Your task to perform on an android device: turn off picture-in-picture Image 0: 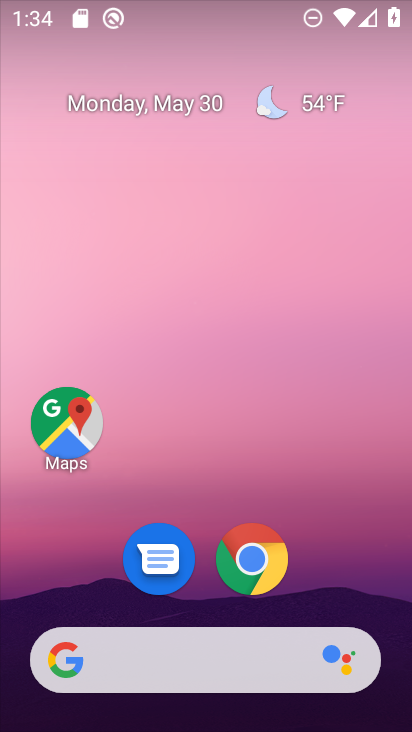
Step 0: click (259, 566)
Your task to perform on an android device: turn off picture-in-picture Image 1: 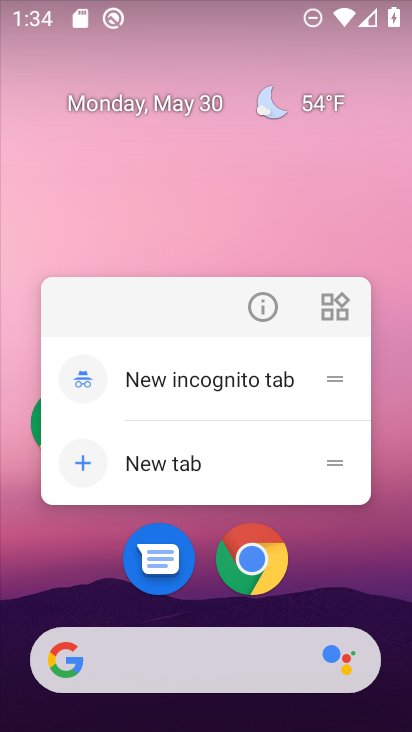
Step 1: click (267, 313)
Your task to perform on an android device: turn off picture-in-picture Image 2: 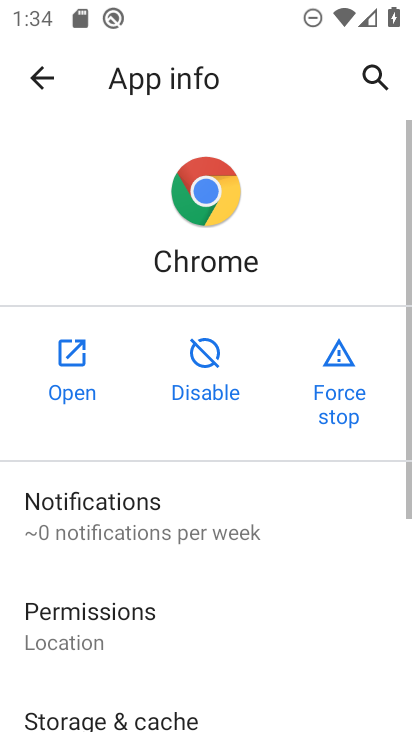
Step 2: drag from (227, 646) to (311, 160)
Your task to perform on an android device: turn off picture-in-picture Image 3: 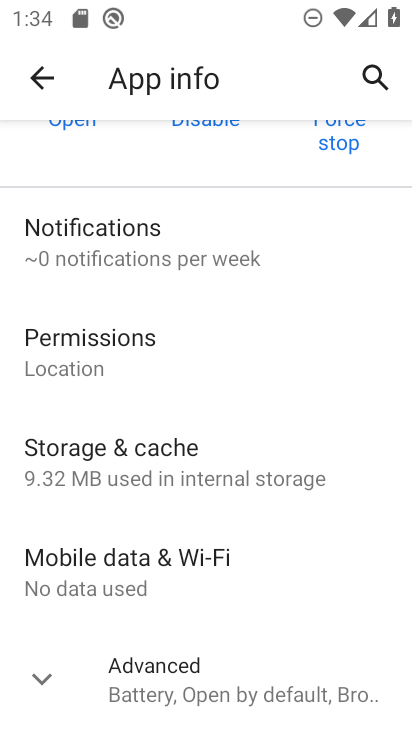
Step 3: click (201, 688)
Your task to perform on an android device: turn off picture-in-picture Image 4: 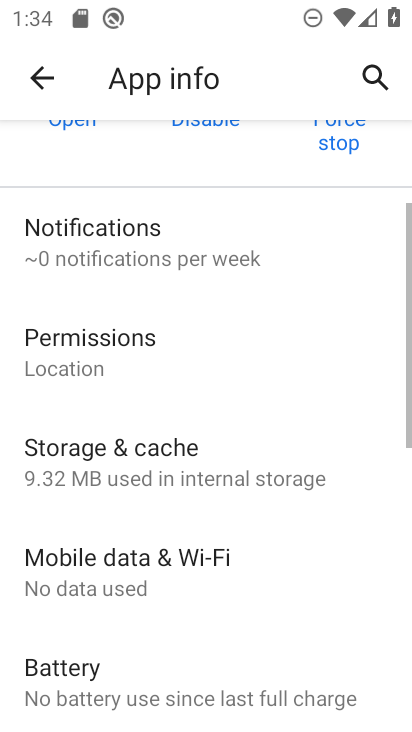
Step 4: drag from (201, 688) to (277, 153)
Your task to perform on an android device: turn off picture-in-picture Image 5: 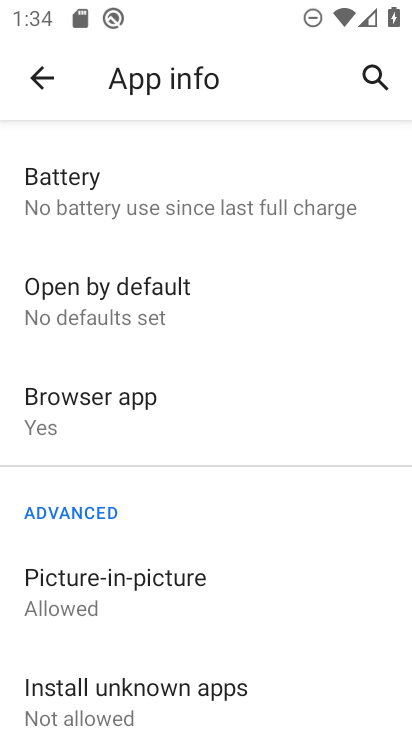
Step 5: click (91, 574)
Your task to perform on an android device: turn off picture-in-picture Image 6: 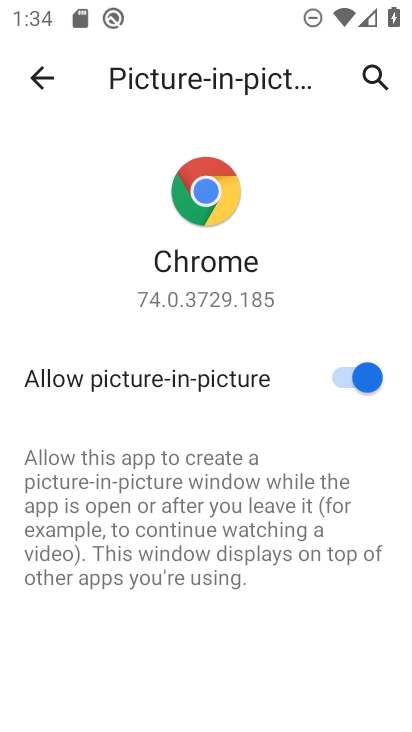
Step 6: click (352, 391)
Your task to perform on an android device: turn off picture-in-picture Image 7: 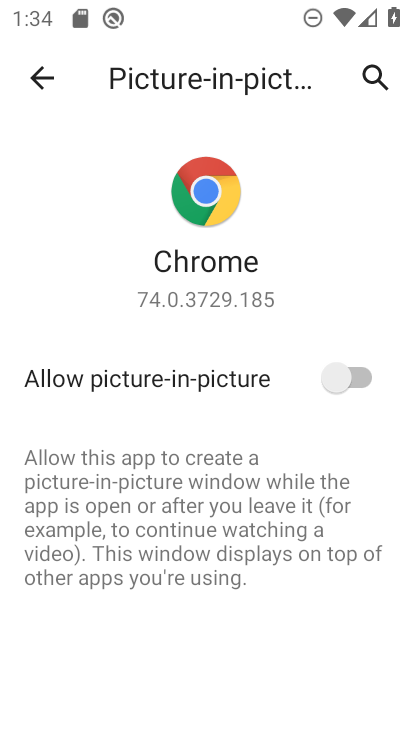
Step 7: task complete